Your task to perform on an android device: toggle translation in the chrome app Image 0: 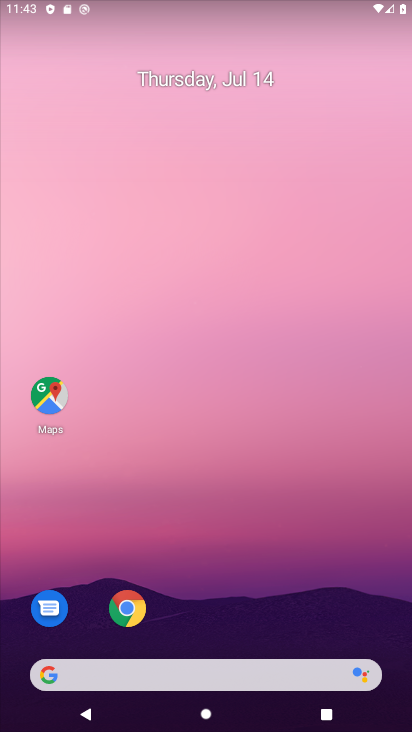
Step 0: drag from (200, 636) to (261, 104)
Your task to perform on an android device: toggle translation in the chrome app Image 1: 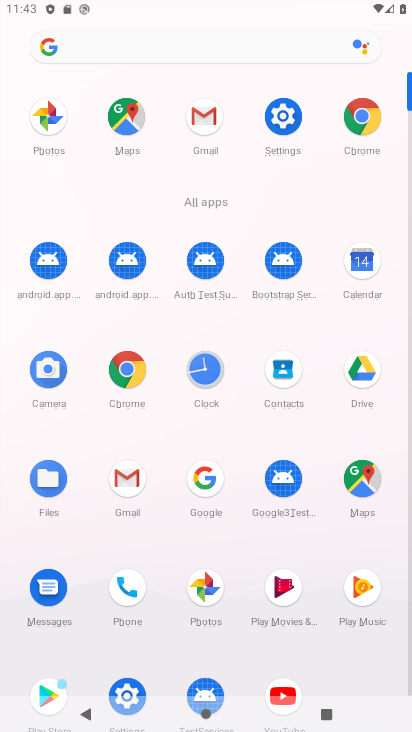
Step 1: drag from (188, 602) to (195, 195)
Your task to perform on an android device: toggle translation in the chrome app Image 2: 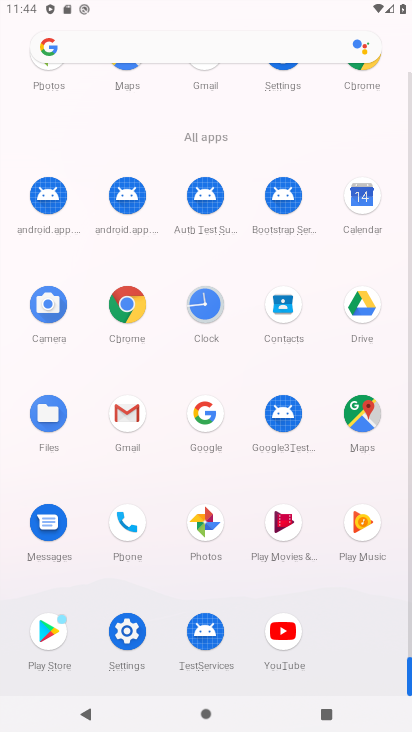
Step 2: click (121, 319)
Your task to perform on an android device: toggle translation in the chrome app Image 3: 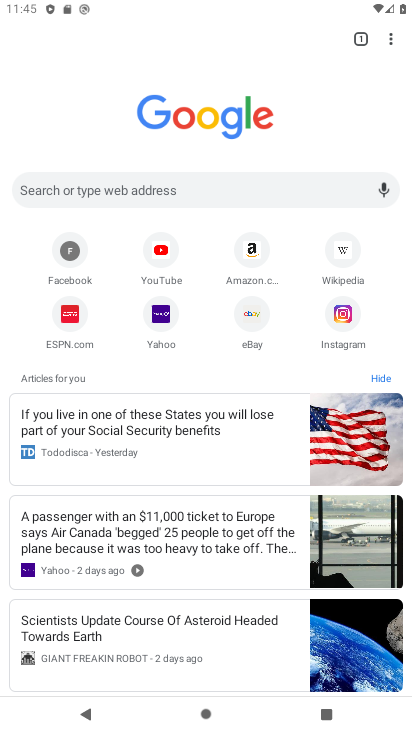
Step 3: click (391, 37)
Your task to perform on an android device: toggle translation in the chrome app Image 4: 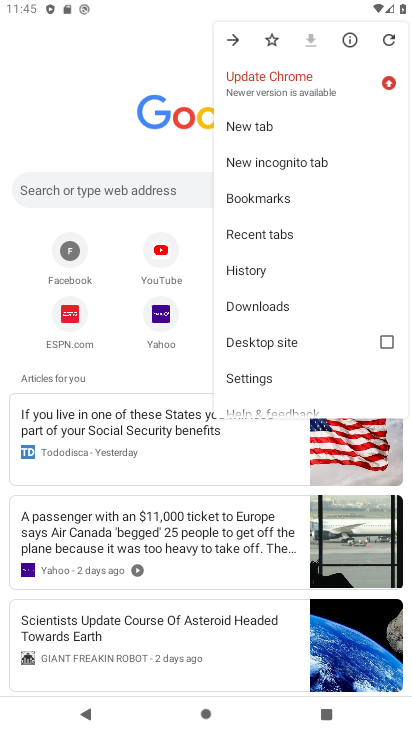
Step 4: click (255, 377)
Your task to perform on an android device: toggle translation in the chrome app Image 5: 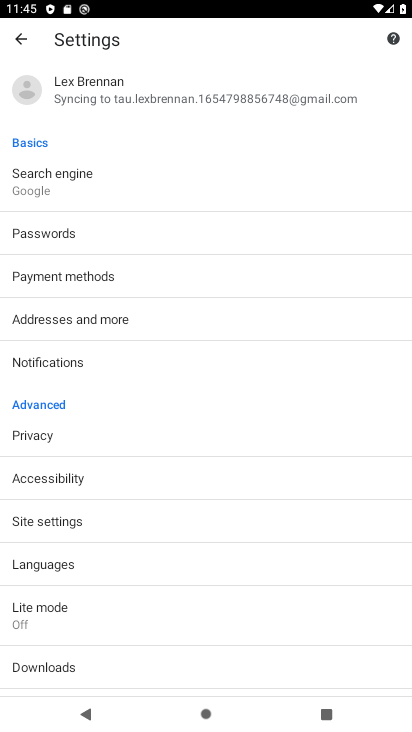
Step 5: click (60, 572)
Your task to perform on an android device: toggle translation in the chrome app Image 6: 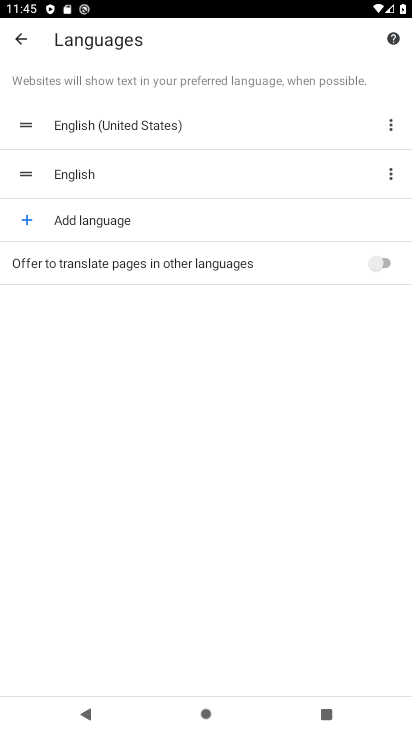
Step 6: click (388, 267)
Your task to perform on an android device: toggle translation in the chrome app Image 7: 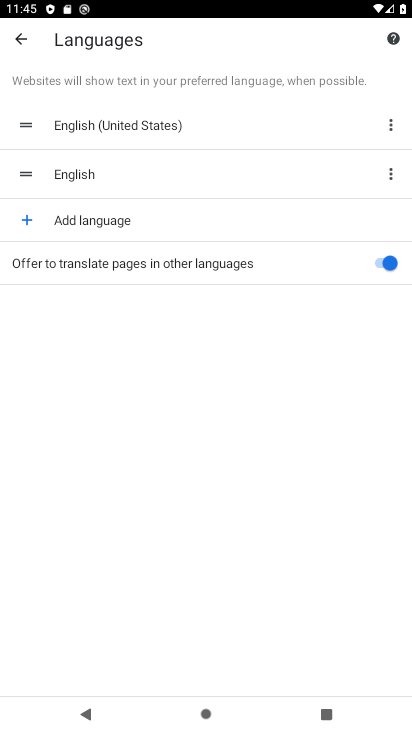
Step 7: task complete